Your task to perform on an android device: delete location history Image 0: 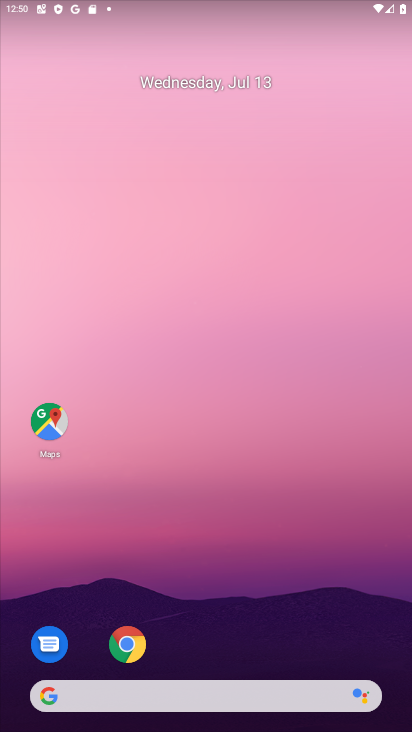
Step 0: drag from (258, 657) to (282, 285)
Your task to perform on an android device: delete location history Image 1: 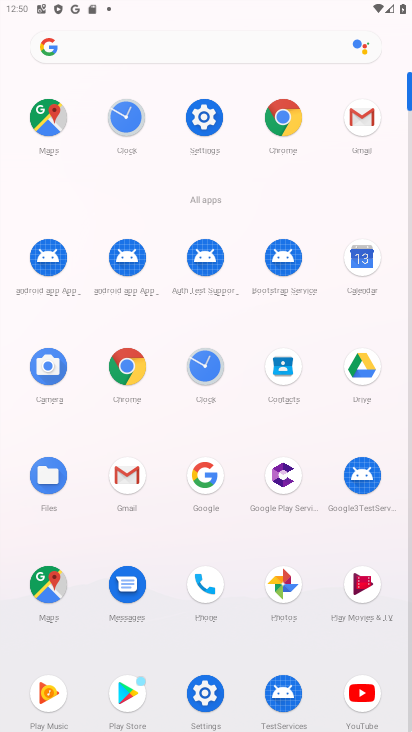
Step 1: click (48, 110)
Your task to perform on an android device: delete location history Image 2: 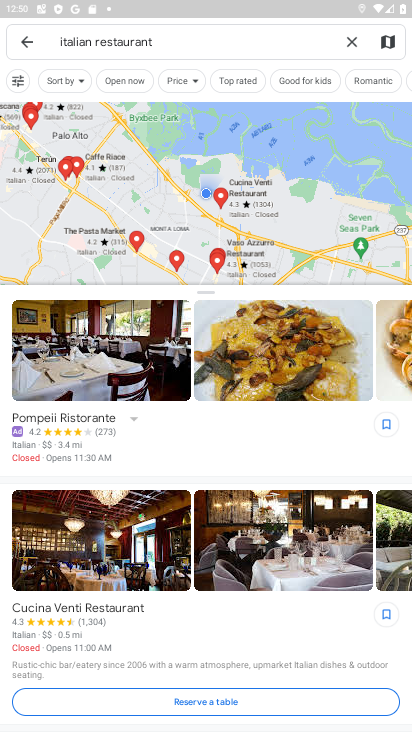
Step 2: click (28, 33)
Your task to perform on an android device: delete location history Image 3: 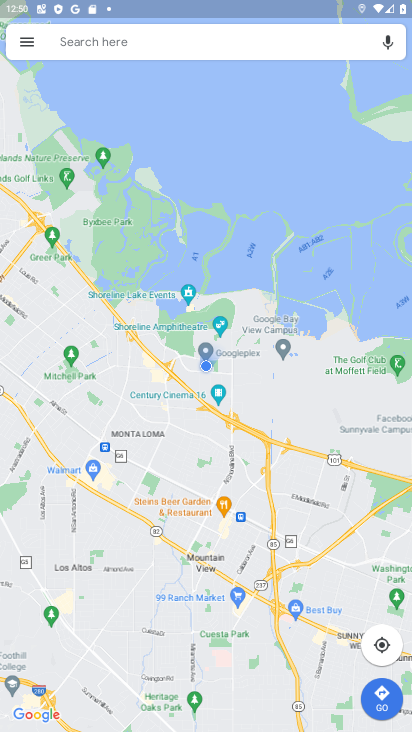
Step 3: click (28, 37)
Your task to perform on an android device: delete location history Image 4: 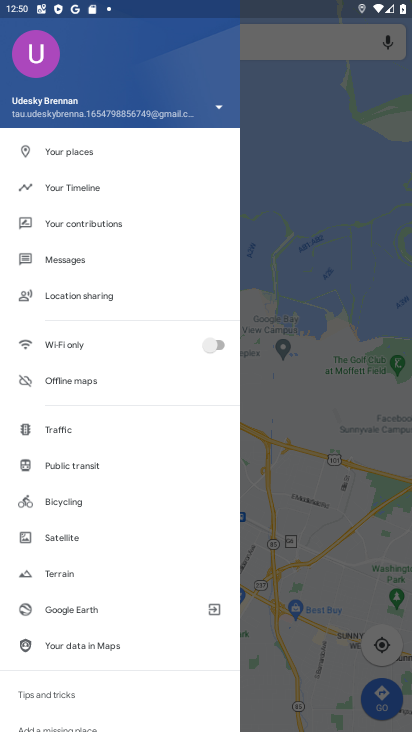
Step 4: click (102, 179)
Your task to perform on an android device: delete location history Image 5: 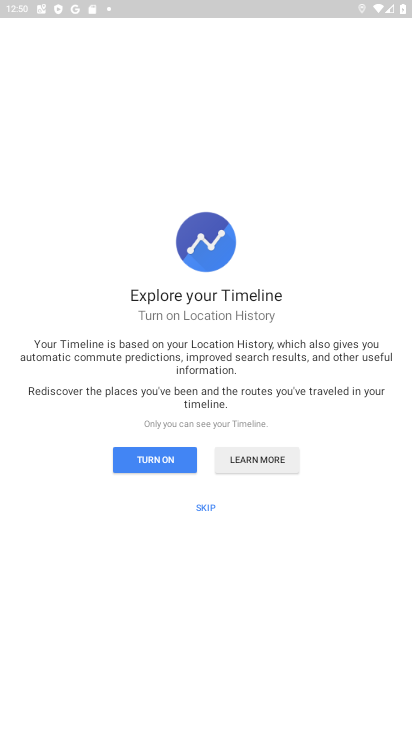
Step 5: click (203, 502)
Your task to perform on an android device: delete location history Image 6: 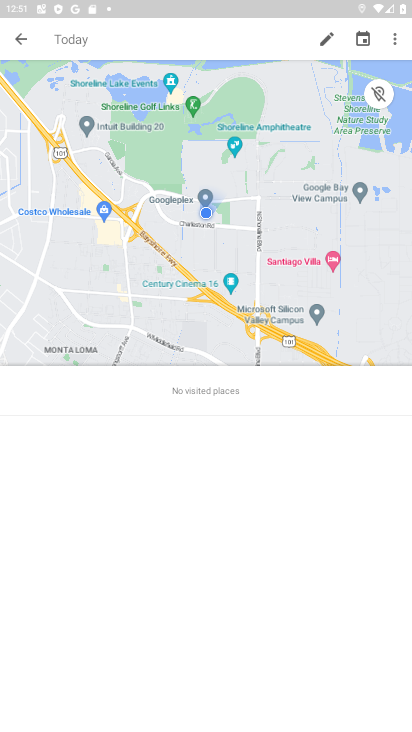
Step 6: click (395, 37)
Your task to perform on an android device: delete location history Image 7: 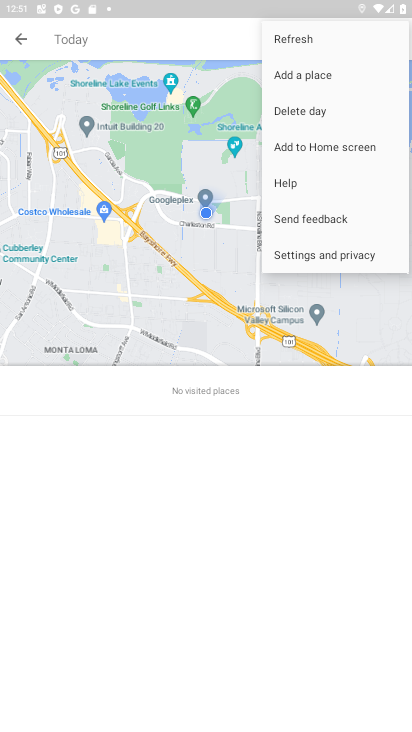
Step 7: click (340, 259)
Your task to perform on an android device: delete location history Image 8: 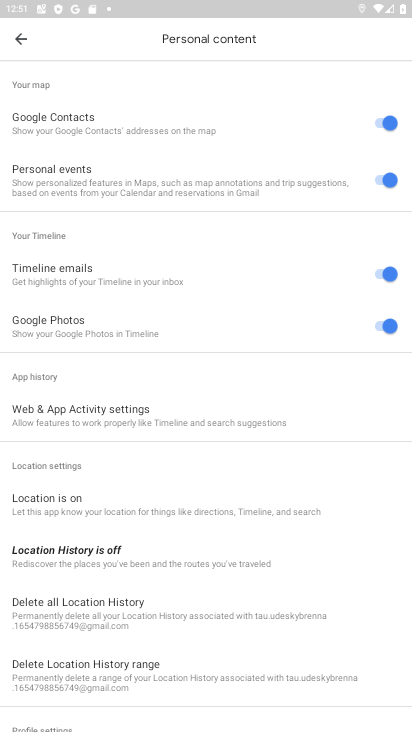
Step 8: click (184, 605)
Your task to perform on an android device: delete location history Image 9: 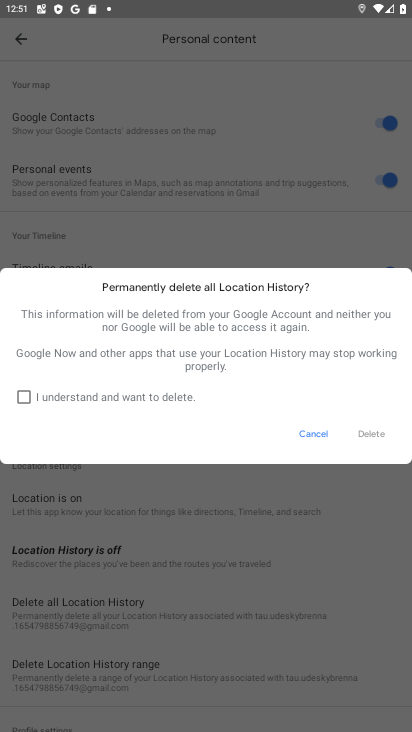
Step 9: click (158, 401)
Your task to perform on an android device: delete location history Image 10: 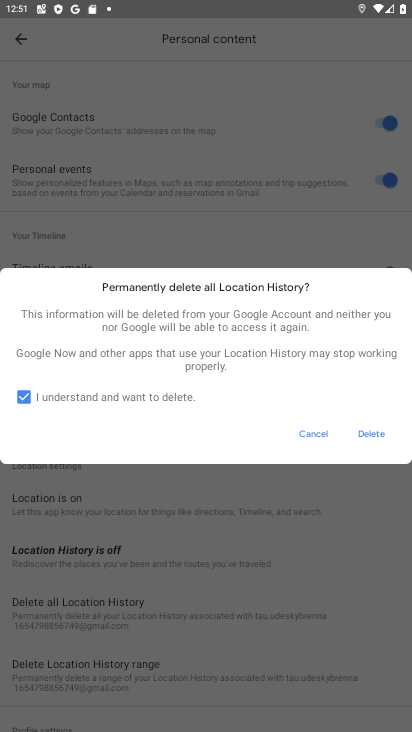
Step 10: click (374, 436)
Your task to perform on an android device: delete location history Image 11: 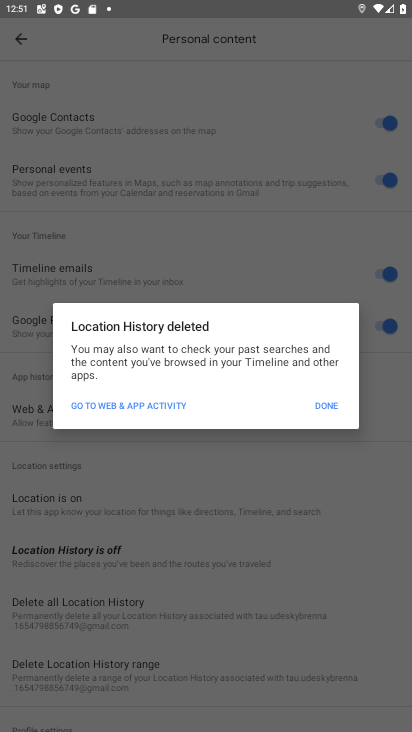
Step 11: click (335, 409)
Your task to perform on an android device: delete location history Image 12: 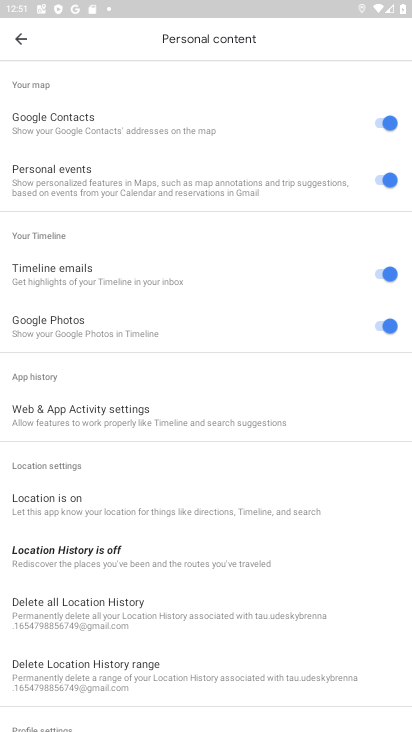
Step 12: task complete